Your task to perform on an android device: turn off data saver in the chrome app Image 0: 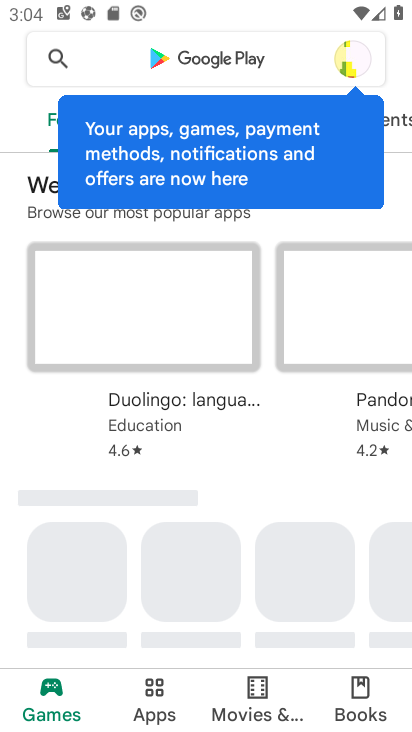
Step 0: press home button
Your task to perform on an android device: turn off data saver in the chrome app Image 1: 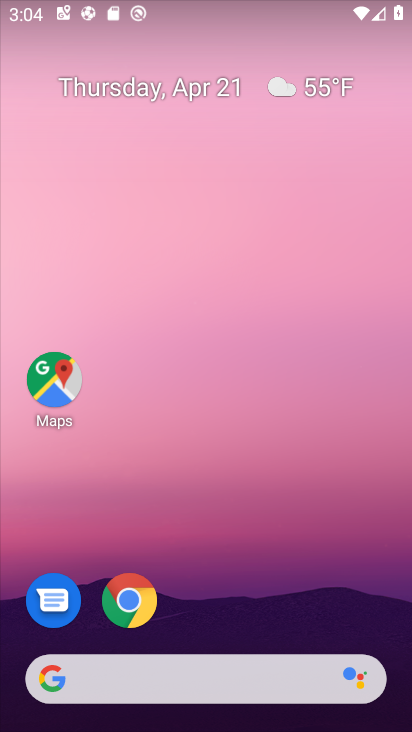
Step 1: drag from (206, 678) to (360, 95)
Your task to perform on an android device: turn off data saver in the chrome app Image 2: 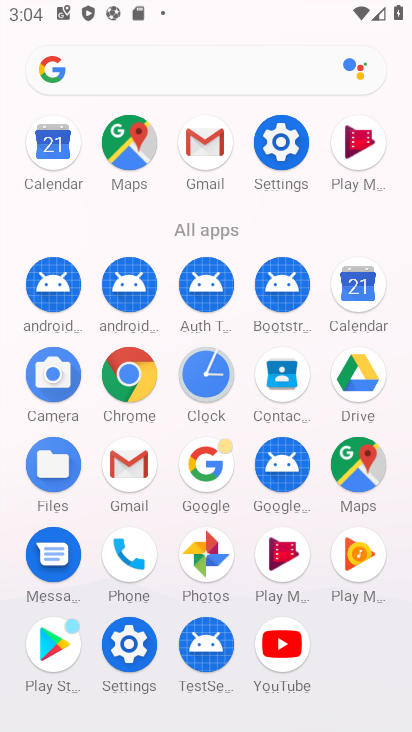
Step 2: click (131, 391)
Your task to perform on an android device: turn off data saver in the chrome app Image 3: 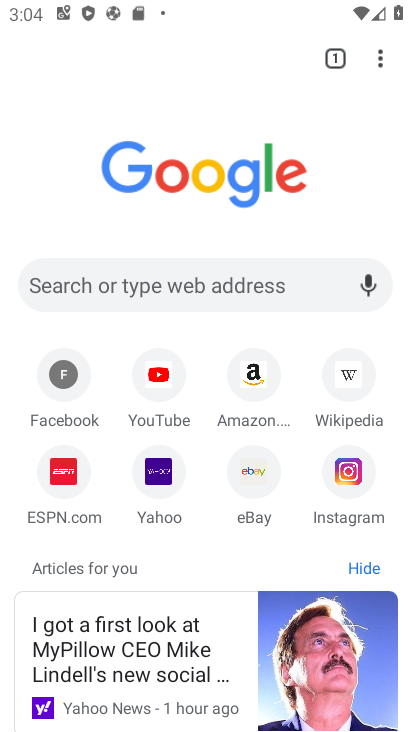
Step 3: click (373, 69)
Your task to perform on an android device: turn off data saver in the chrome app Image 4: 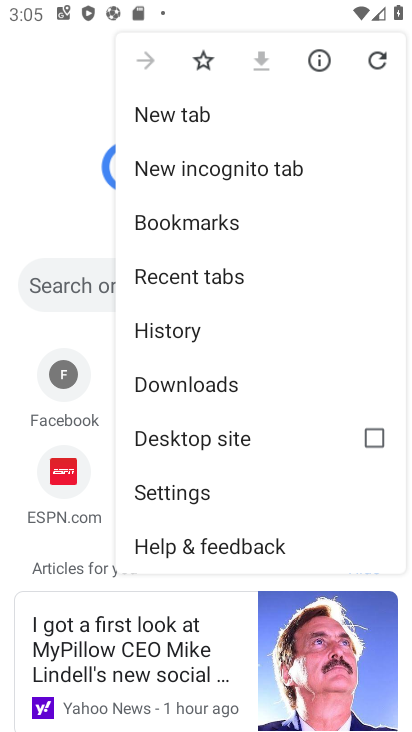
Step 4: click (174, 492)
Your task to perform on an android device: turn off data saver in the chrome app Image 5: 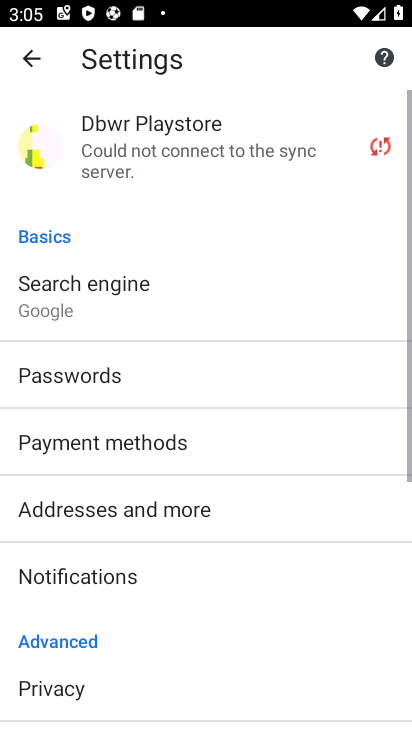
Step 5: drag from (172, 580) to (321, 87)
Your task to perform on an android device: turn off data saver in the chrome app Image 6: 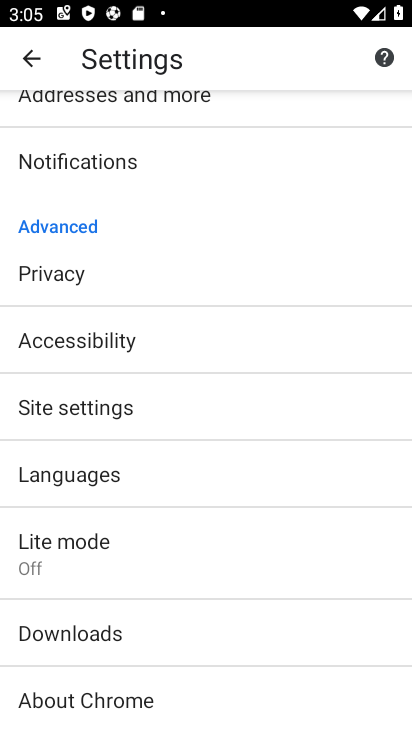
Step 6: click (85, 561)
Your task to perform on an android device: turn off data saver in the chrome app Image 7: 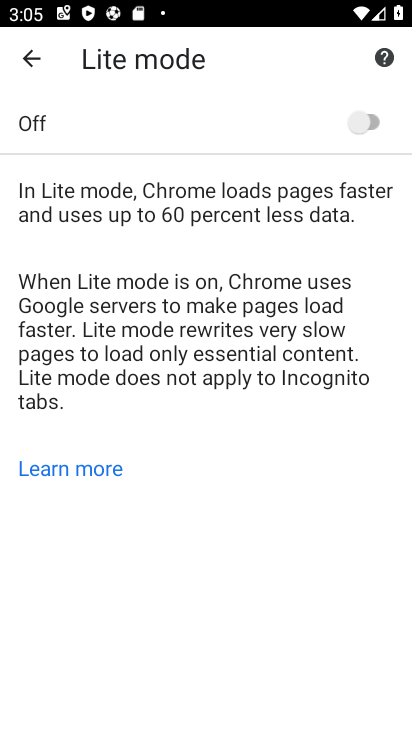
Step 7: task complete